Your task to perform on an android device: toggle notification dots Image 0: 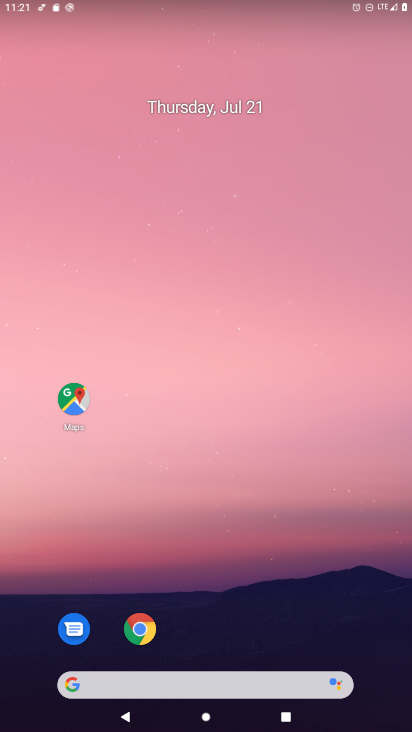
Step 0: drag from (266, 590) to (314, 19)
Your task to perform on an android device: toggle notification dots Image 1: 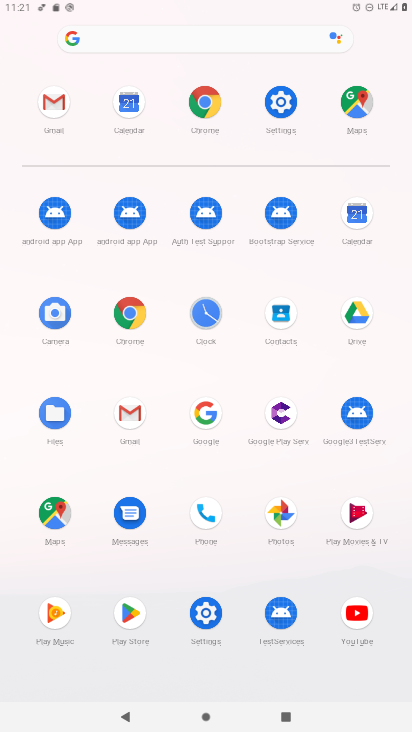
Step 1: click (192, 609)
Your task to perform on an android device: toggle notification dots Image 2: 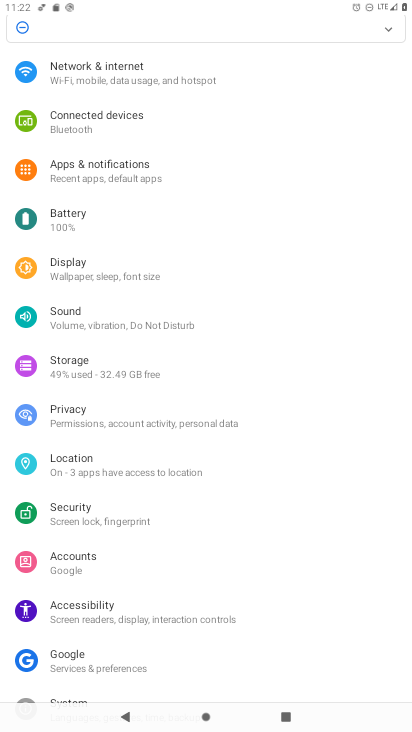
Step 2: click (160, 196)
Your task to perform on an android device: toggle notification dots Image 3: 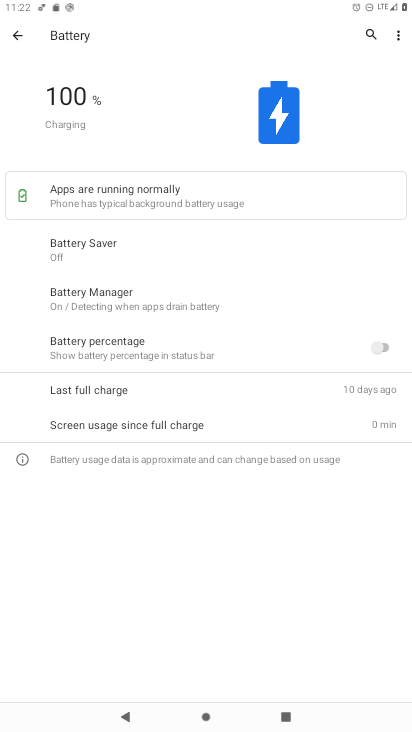
Step 3: click (16, 26)
Your task to perform on an android device: toggle notification dots Image 4: 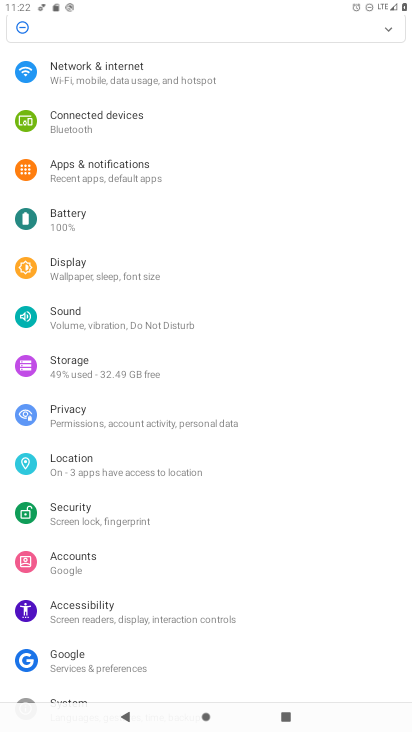
Step 4: click (83, 162)
Your task to perform on an android device: toggle notification dots Image 5: 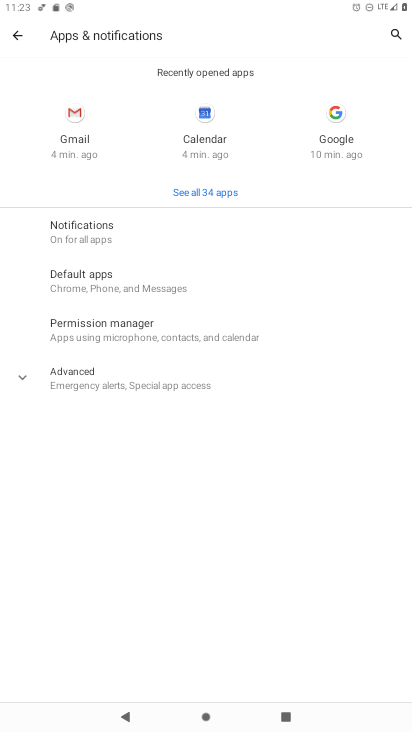
Step 5: click (32, 230)
Your task to perform on an android device: toggle notification dots Image 6: 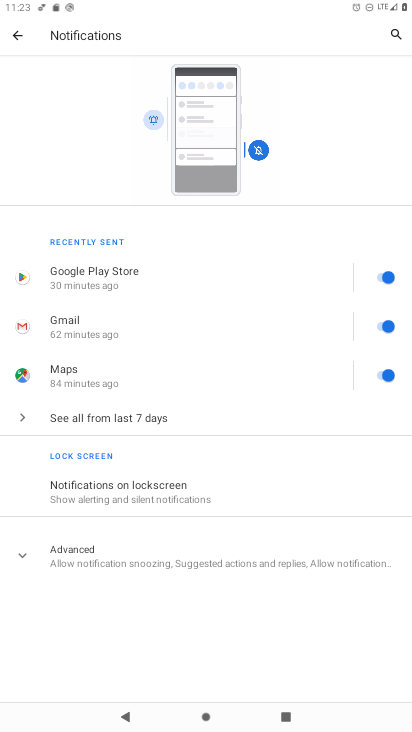
Step 6: click (53, 564)
Your task to perform on an android device: toggle notification dots Image 7: 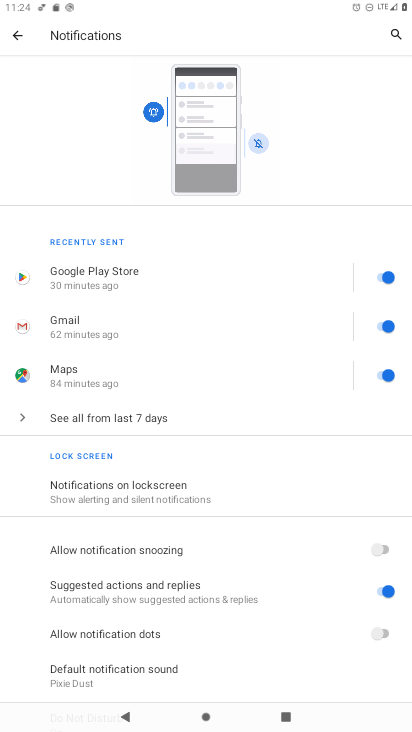
Step 7: click (130, 628)
Your task to perform on an android device: toggle notification dots Image 8: 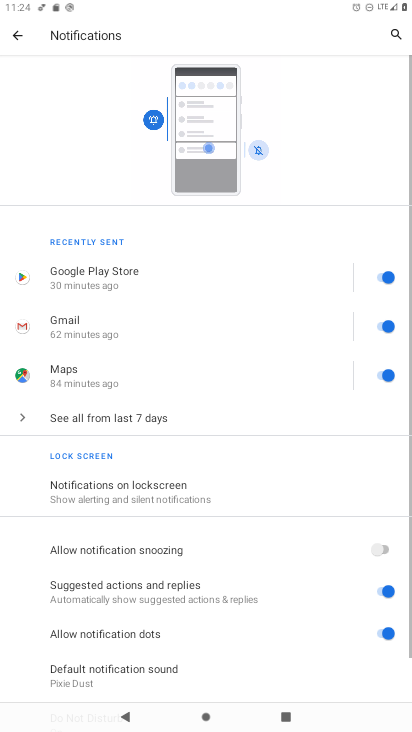
Step 8: task complete